Your task to perform on an android device: change the clock display to show seconds Image 0: 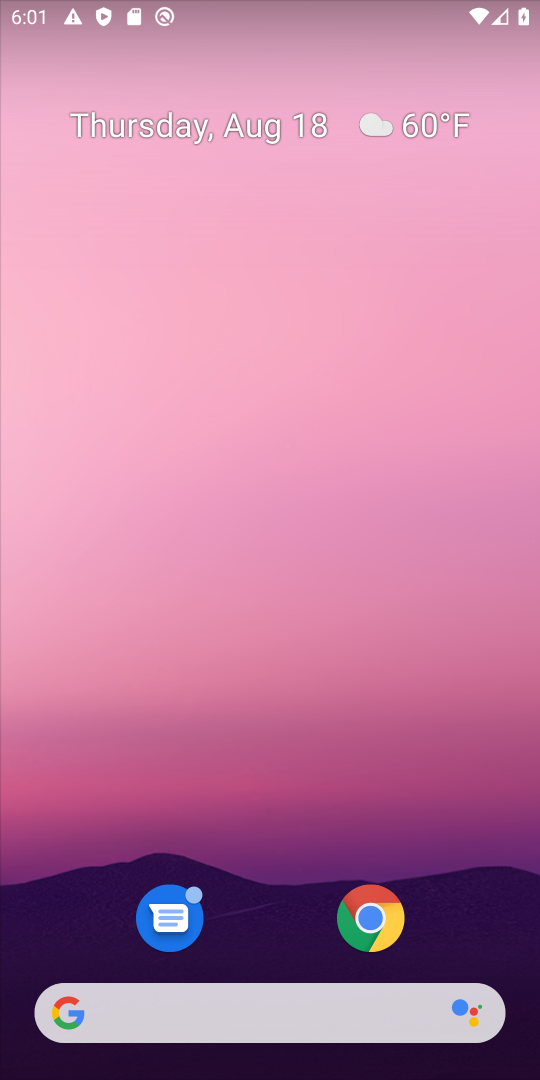
Step 0: press home button
Your task to perform on an android device: change the clock display to show seconds Image 1: 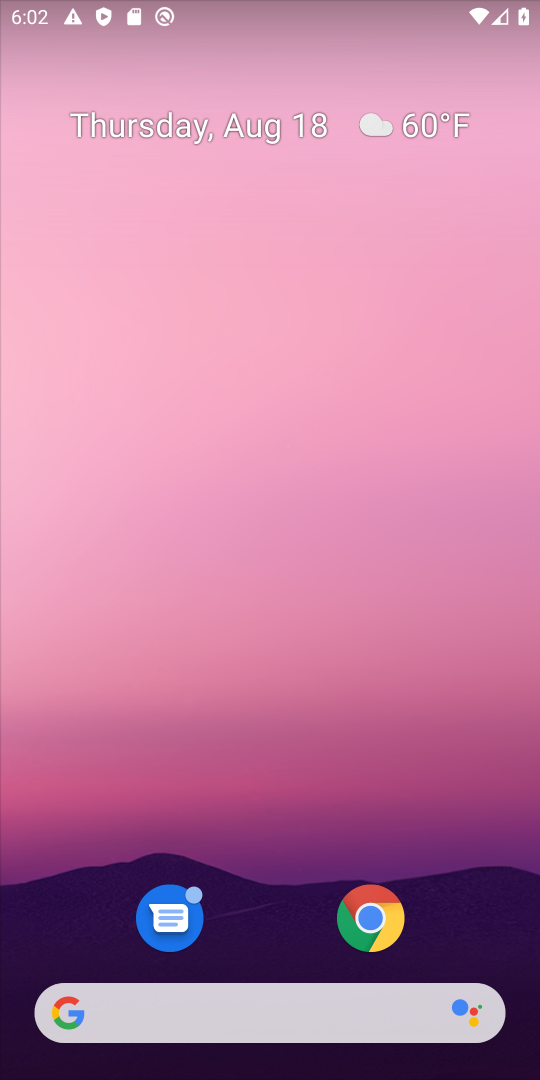
Step 1: drag from (263, 927) to (193, 372)
Your task to perform on an android device: change the clock display to show seconds Image 2: 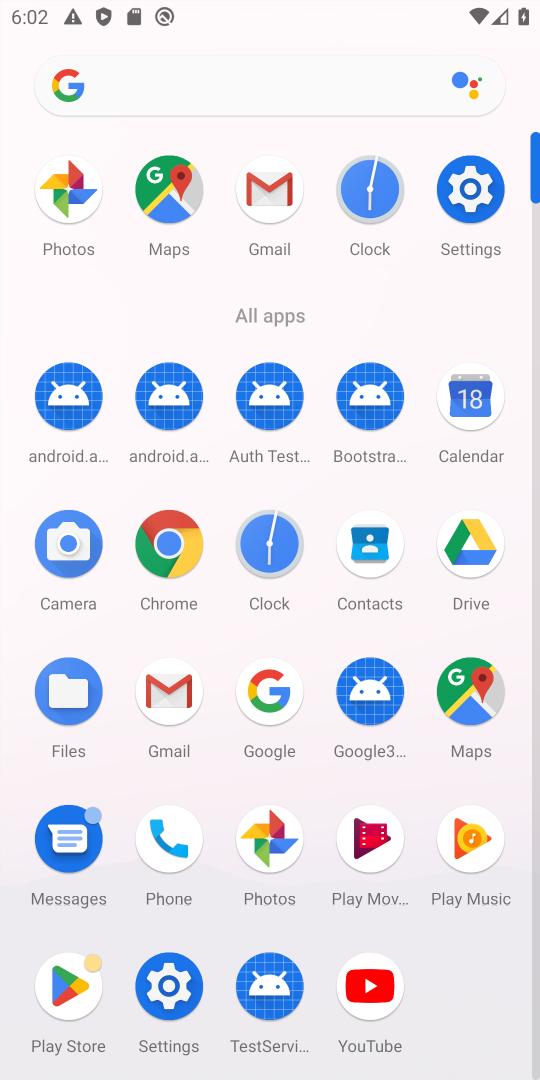
Step 2: click (364, 191)
Your task to perform on an android device: change the clock display to show seconds Image 3: 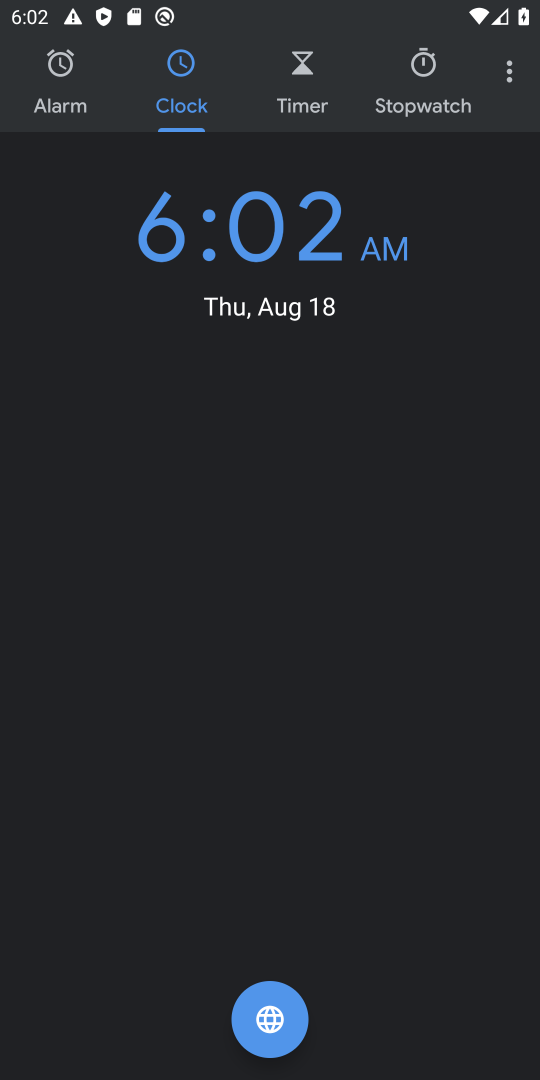
Step 3: click (509, 61)
Your task to perform on an android device: change the clock display to show seconds Image 4: 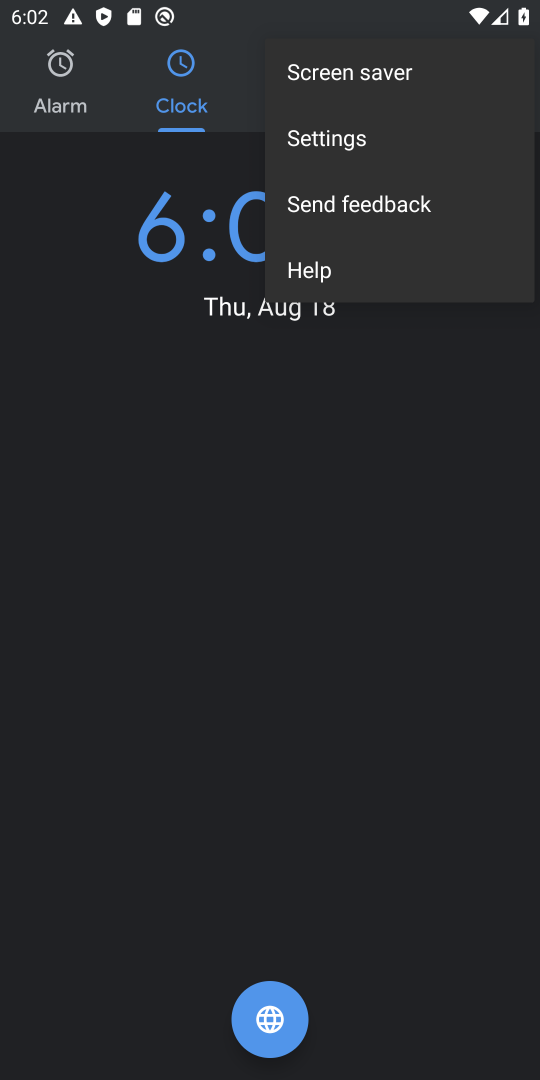
Step 4: click (329, 132)
Your task to perform on an android device: change the clock display to show seconds Image 5: 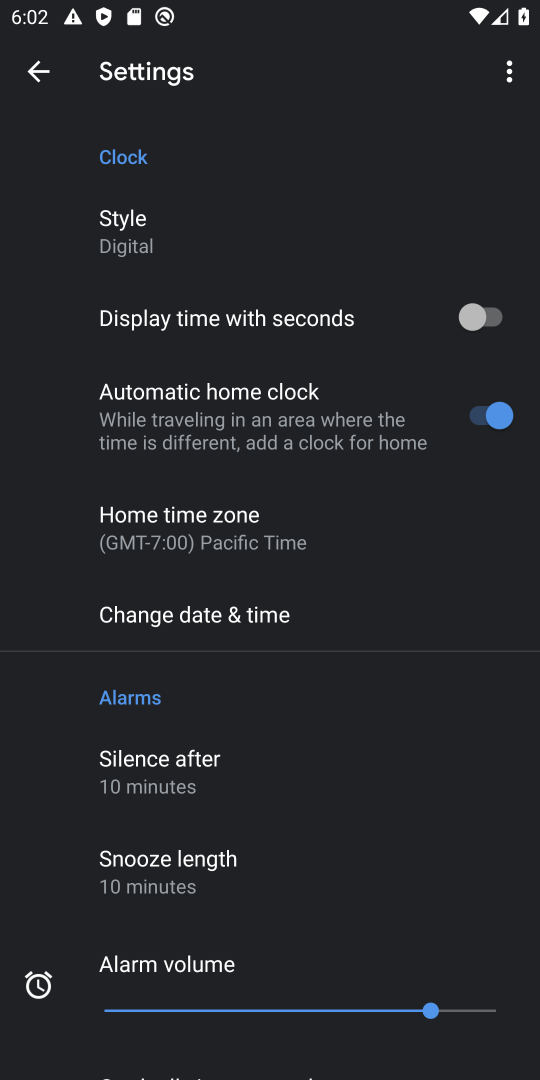
Step 5: click (472, 311)
Your task to perform on an android device: change the clock display to show seconds Image 6: 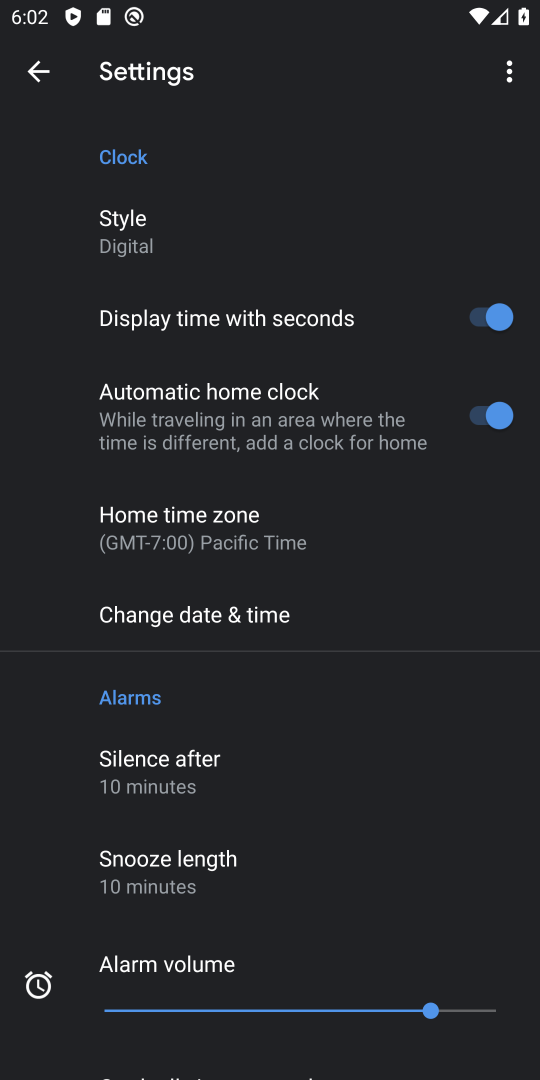
Step 6: task complete